Your task to perform on an android device: Open notification settings Image 0: 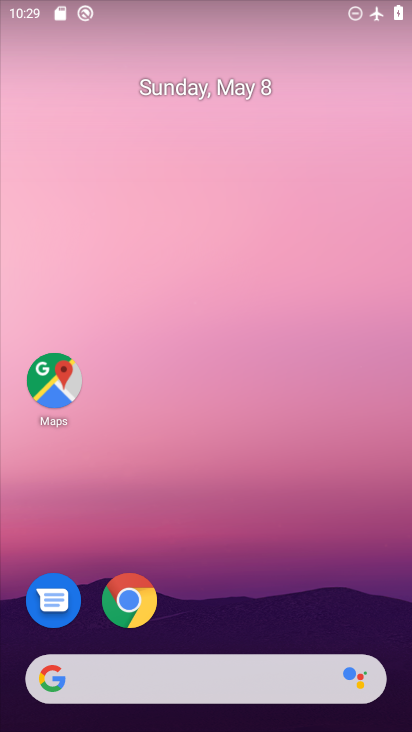
Step 0: drag from (203, 727) to (243, 112)
Your task to perform on an android device: Open notification settings Image 1: 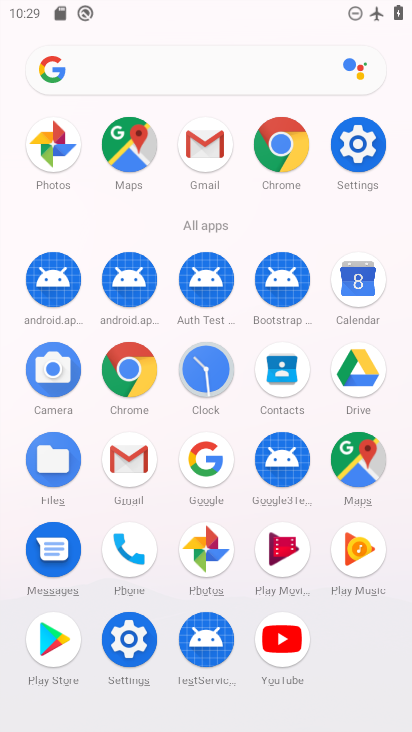
Step 1: click (355, 144)
Your task to perform on an android device: Open notification settings Image 2: 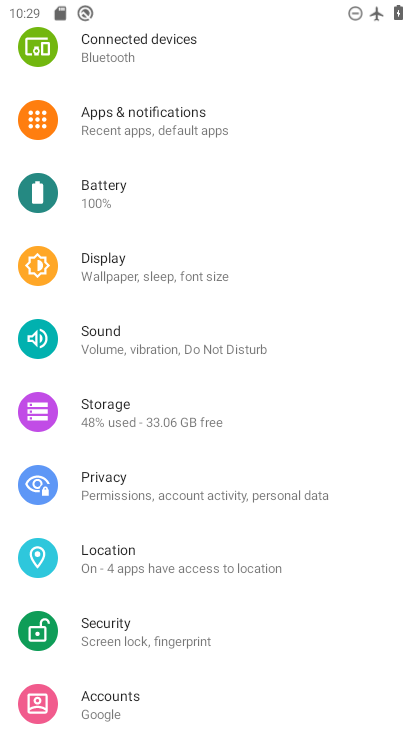
Step 2: click (129, 125)
Your task to perform on an android device: Open notification settings Image 3: 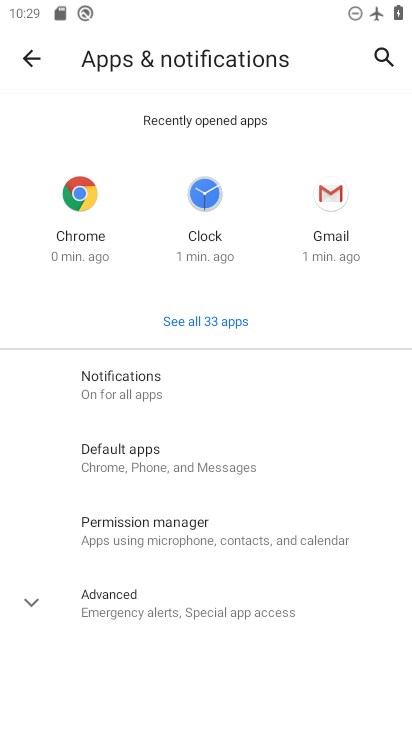
Step 3: click (110, 387)
Your task to perform on an android device: Open notification settings Image 4: 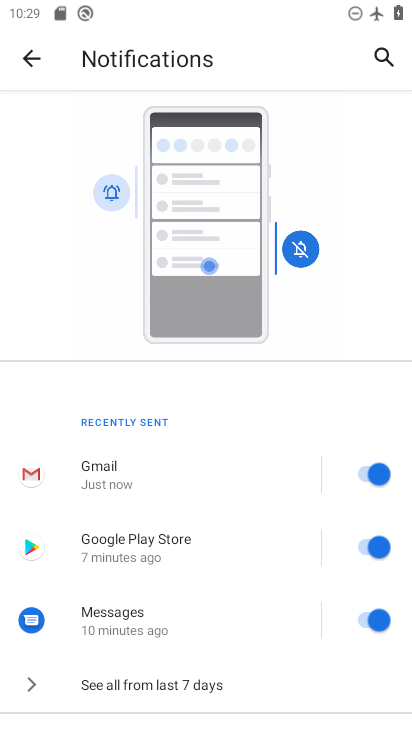
Step 4: task complete